Your task to perform on an android device: Open Chrome and go to the settings page Image 0: 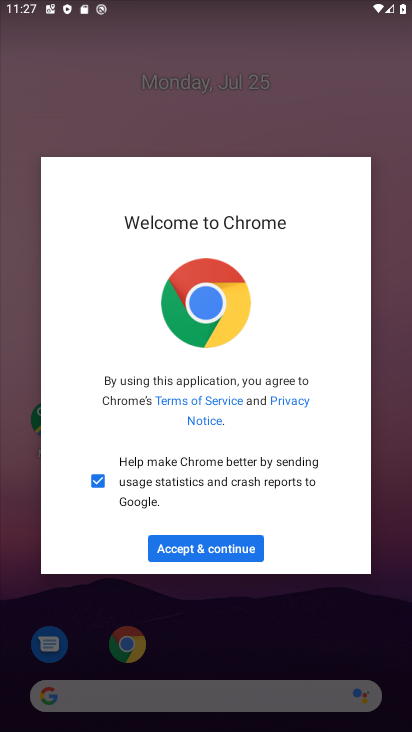
Step 0: press home button
Your task to perform on an android device: Open Chrome and go to the settings page Image 1: 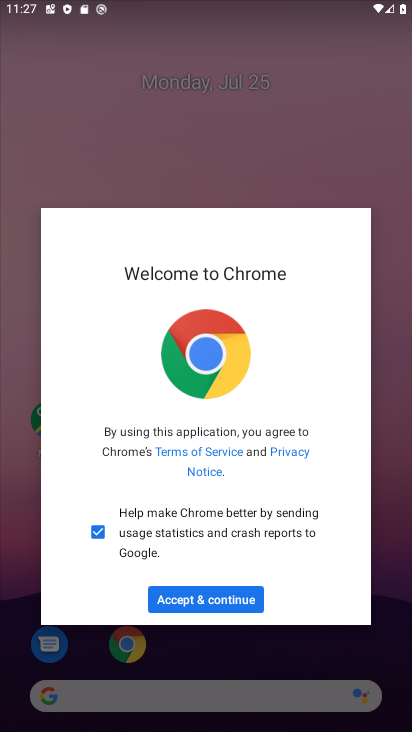
Step 1: press home button
Your task to perform on an android device: Open Chrome and go to the settings page Image 2: 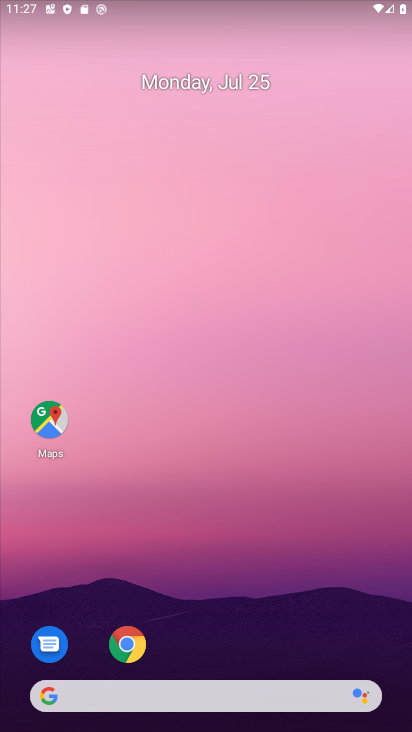
Step 2: drag from (251, 684) to (216, 274)
Your task to perform on an android device: Open Chrome and go to the settings page Image 3: 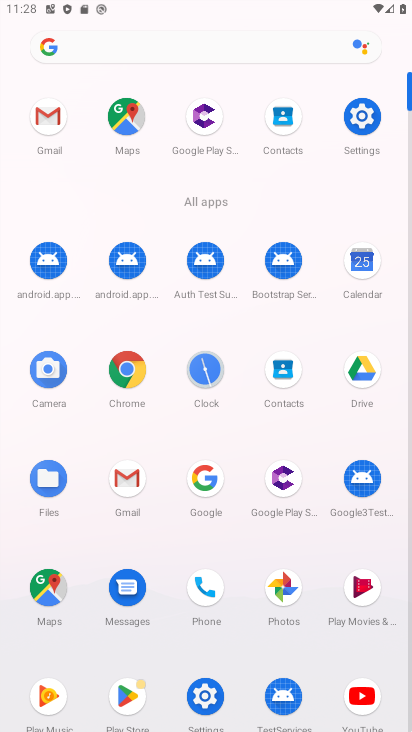
Step 3: click (136, 354)
Your task to perform on an android device: Open Chrome and go to the settings page Image 4: 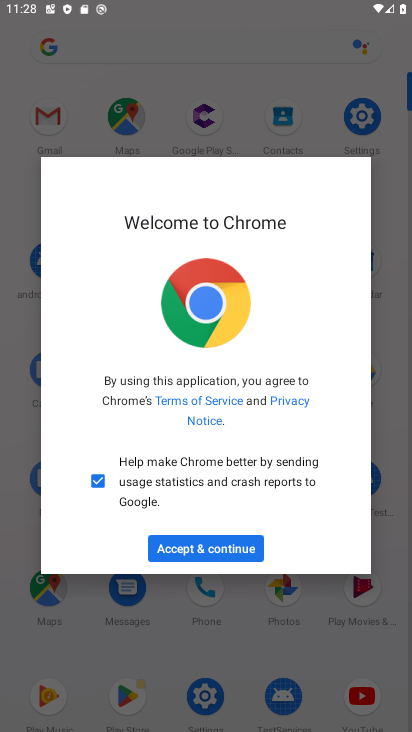
Step 4: click (255, 545)
Your task to perform on an android device: Open Chrome and go to the settings page Image 5: 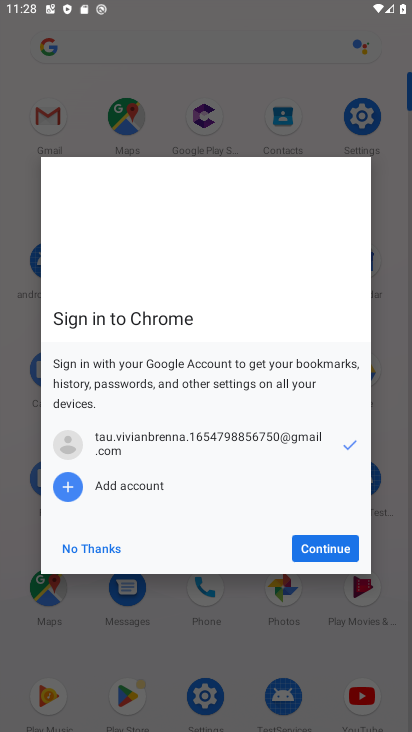
Step 5: click (330, 558)
Your task to perform on an android device: Open Chrome and go to the settings page Image 6: 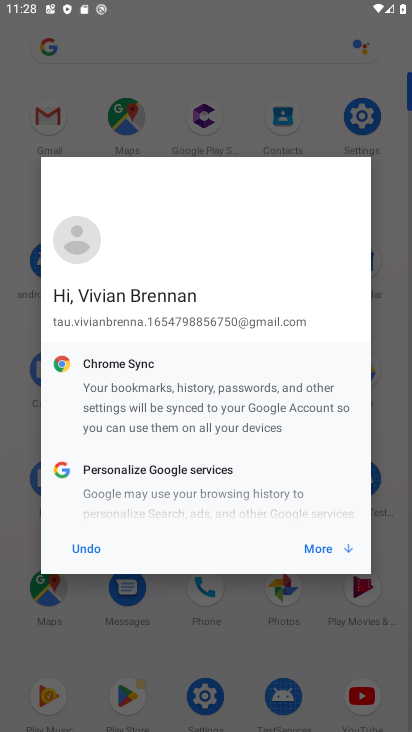
Step 6: click (333, 549)
Your task to perform on an android device: Open Chrome and go to the settings page Image 7: 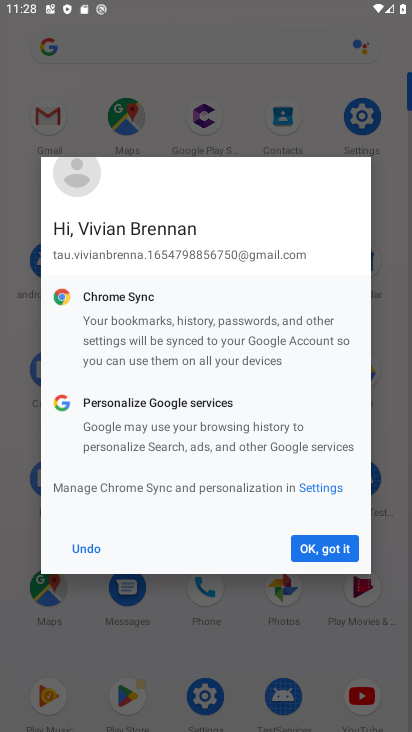
Step 7: click (326, 546)
Your task to perform on an android device: Open Chrome and go to the settings page Image 8: 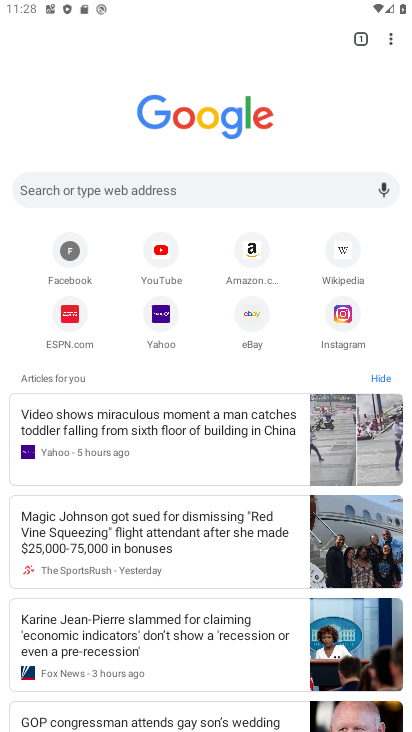
Step 8: click (390, 44)
Your task to perform on an android device: Open Chrome and go to the settings page Image 9: 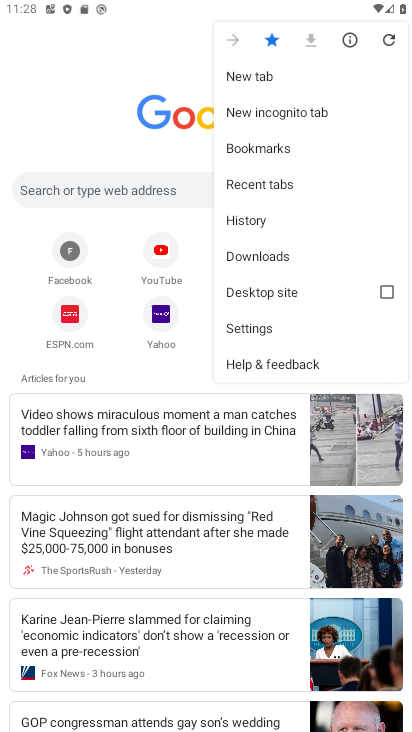
Step 9: click (245, 335)
Your task to perform on an android device: Open Chrome and go to the settings page Image 10: 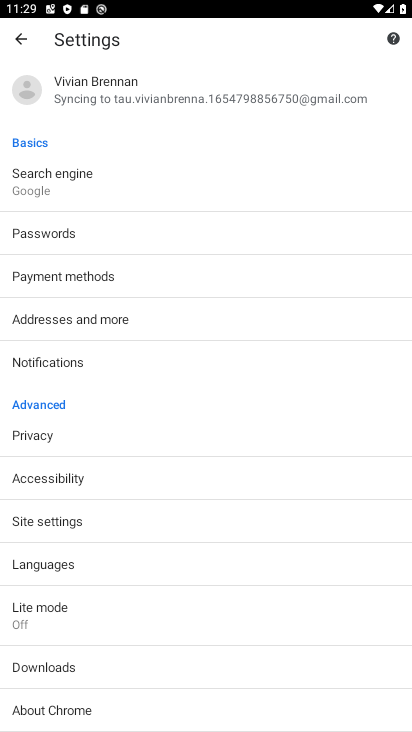
Step 10: task complete